Your task to perform on an android device: set default search engine in the chrome app Image 0: 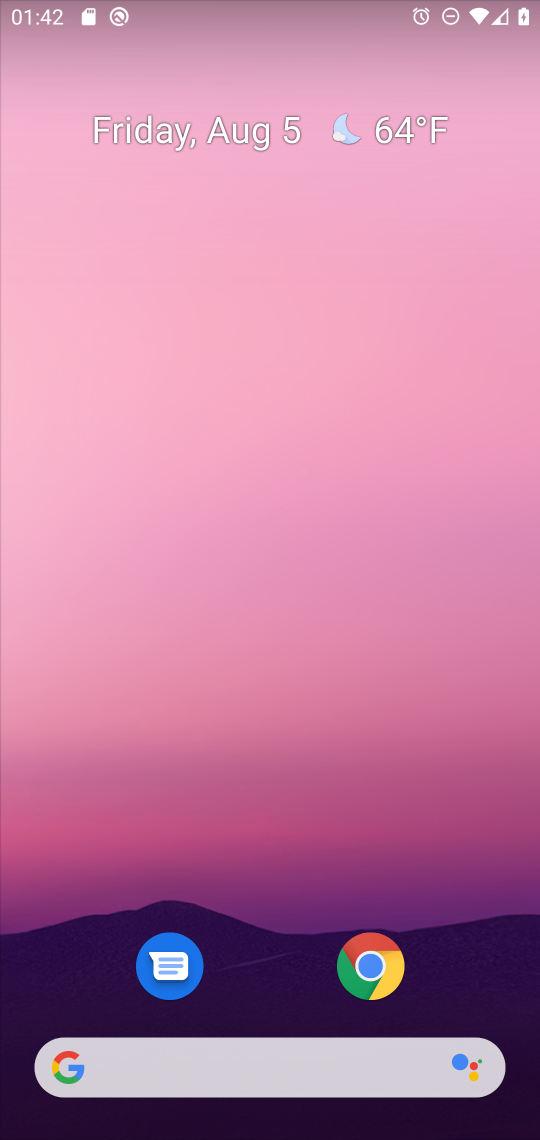
Step 0: click (374, 961)
Your task to perform on an android device: set default search engine in the chrome app Image 1: 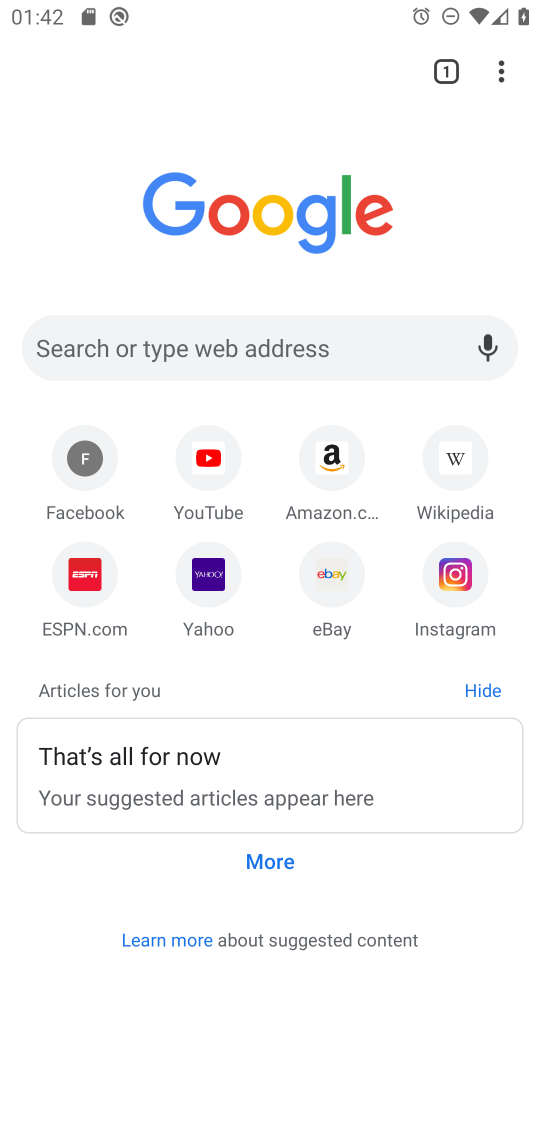
Step 1: click (500, 72)
Your task to perform on an android device: set default search engine in the chrome app Image 2: 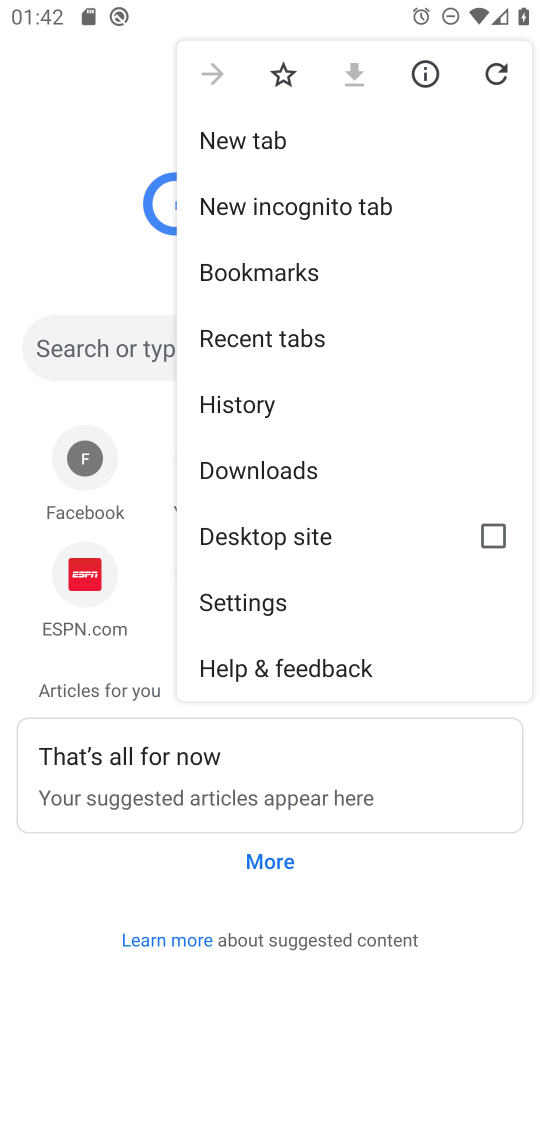
Step 2: click (243, 590)
Your task to perform on an android device: set default search engine in the chrome app Image 3: 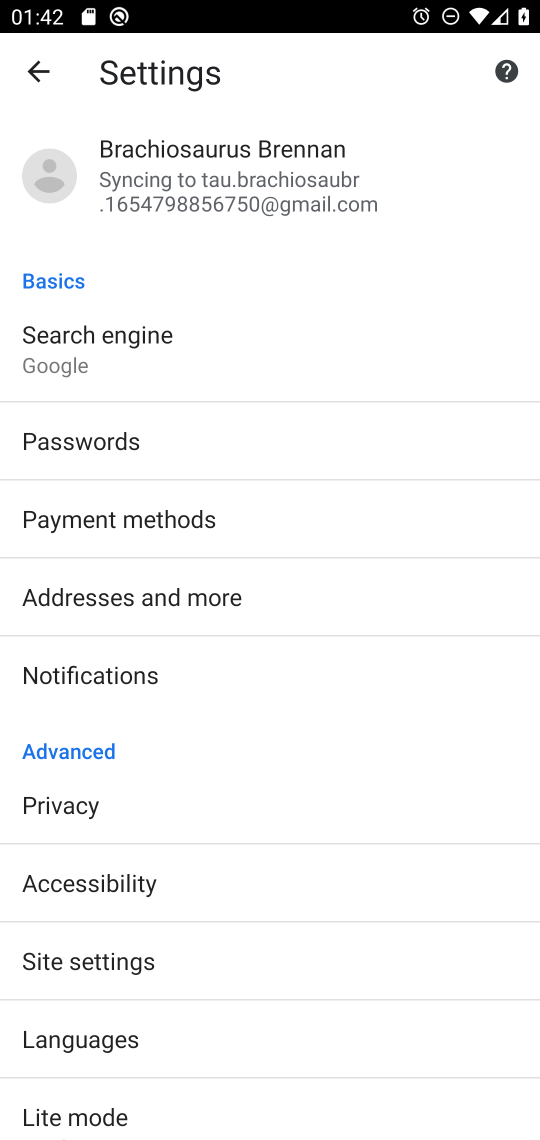
Step 3: click (148, 359)
Your task to perform on an android device: set default search engine in the chrome app Image 4: 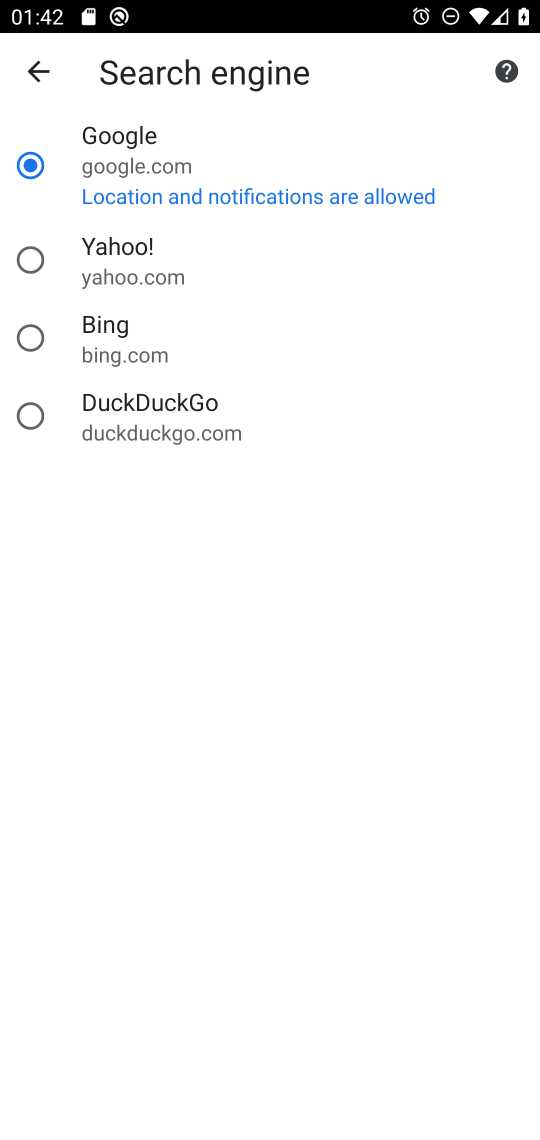
Step 4: task complete